Your task to perform on an android device: Search for "razer kraken" on walmart, select the first entry, and add it to the cart. Image 0: 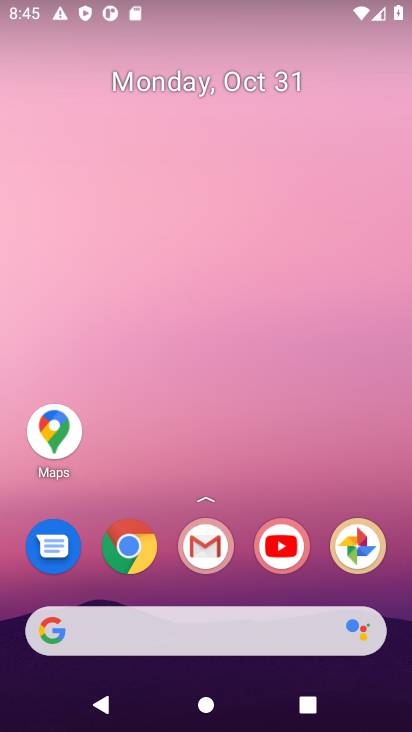
Step 0: click (121, 550)
Your task to perform on an android device: Search for "razer kraken" on walmart, select the first entry, and add it to the cart. Image 1: 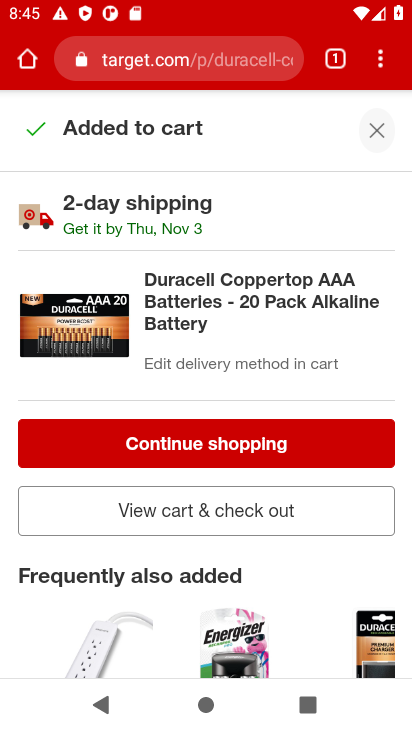
Step 1: click (165, 64)
Your task to perform on an android device: Search for "razer kraken" on walmart, select the first entry, and add it to the cart. Image 2: 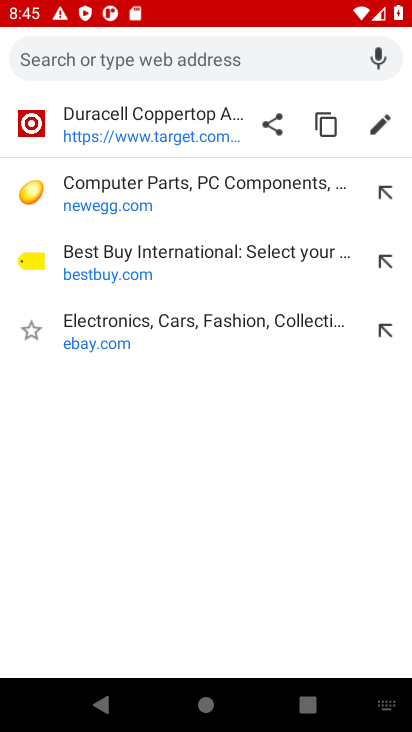
Step 2: type "razer kraken" on walmart"
Your task to perform on an android device: Search for "razer kraken" on walmart, select the first entry, and add it to the cart. Image 3: 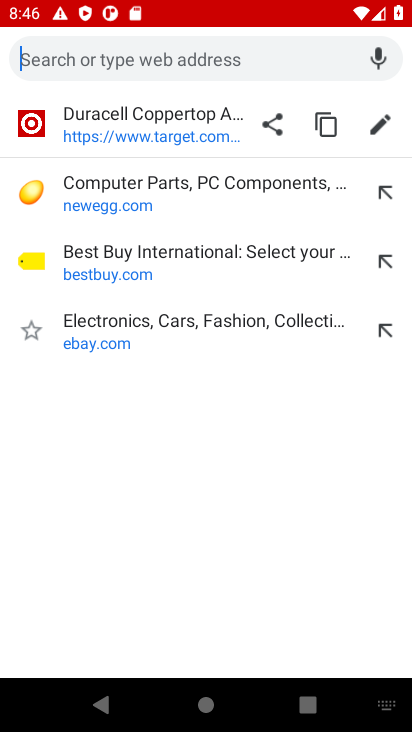
Step 3: type "razer kraken" on walmart"
Your task to perform on an android device: Search for "razer kraken" on walmart, select the first entry, and add it to the cart. Image 4: 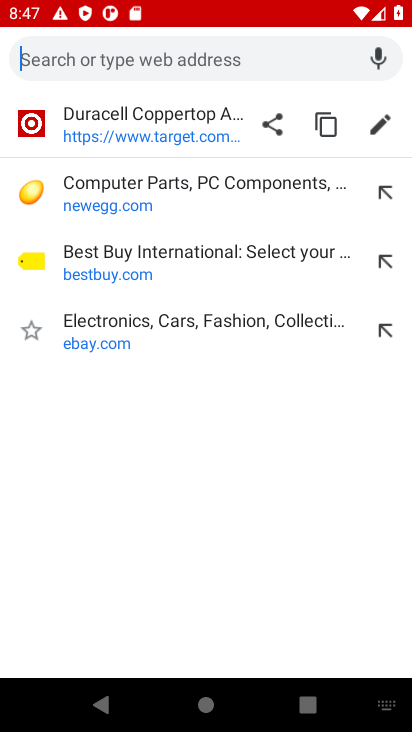
Step 4: click (167, 69)
Your task to perform on an android device: Search for "razer kraken" on walmart, select the first entry, and add it to the cart. Image 5: 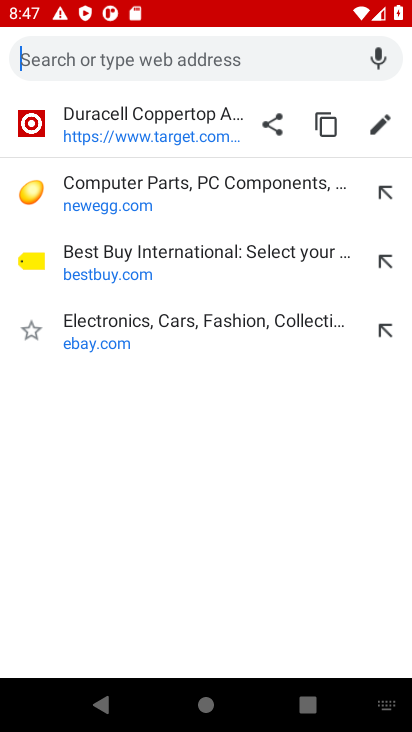
Step 5: click (165, 61)
Your task to perform on an android device: Search for "razer kraken" on walmart, select the first entry, and add it to the cart. Image 6: 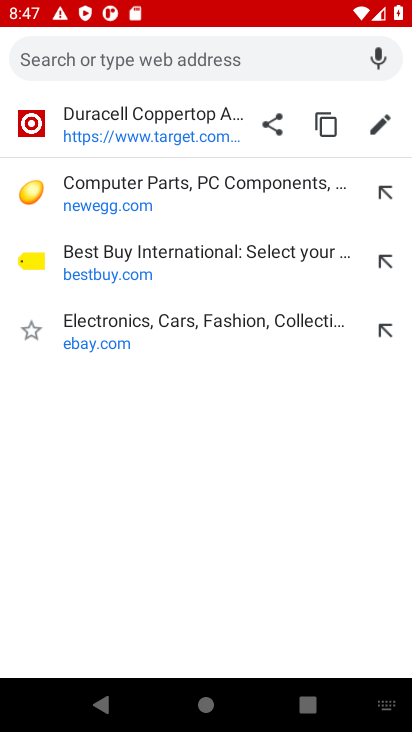
Step 6: type "razer kraken on walmart"
Your task to perform on an android device: Search for "razer kraken" on walmart, select the first entry, and add it to the cart. Image 7: 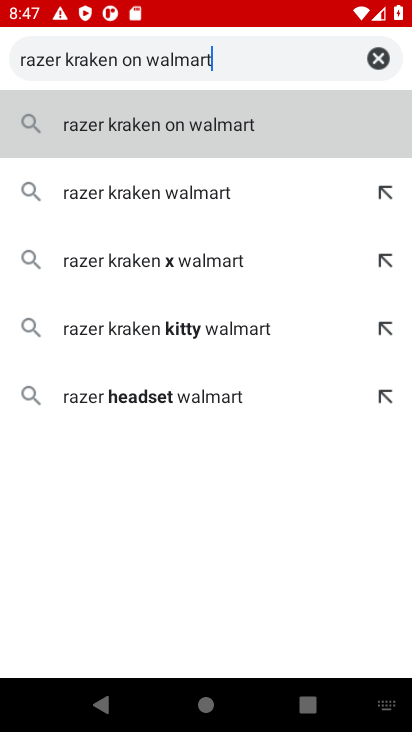
Step 7: press enter
Your task to perform on an android device: Search for "razer kraken" on walmart, select the first entry, and add it to the cart. Image 8: 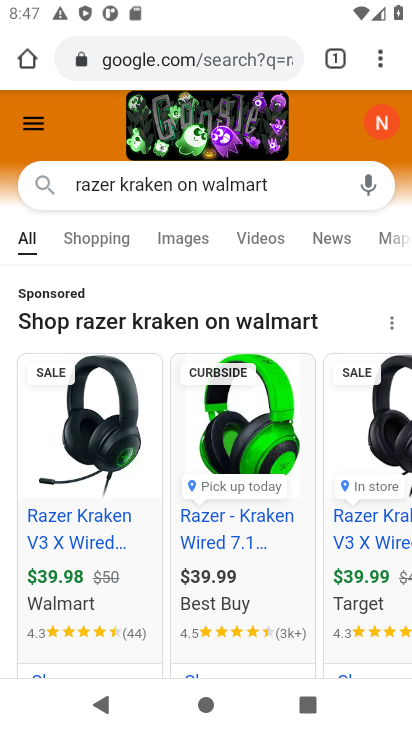
Step 8: drag from (196, 522) to (175, 338)
Your task to perform on an android device: Search for "razer kraken" on walmart, select the first entry, and add it to the cart. Image 9: 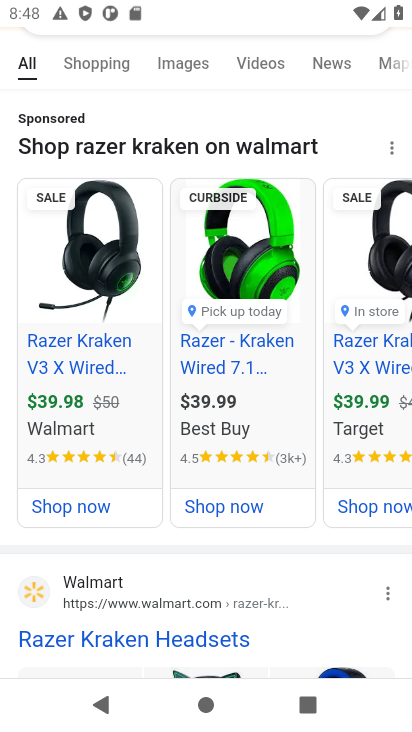
Step 9: drag from (116, 621) to (108, 584)
Your task to perform on an android device: Search for "razer kraken" on walmart, select the first entry, and add it to the cart. Image 10: 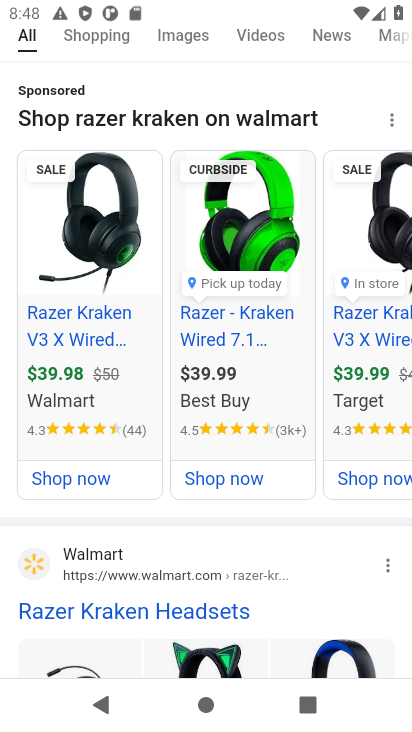
Step 10: click (80, 321)
Your task to perform on an android device: Search for "razer kraken" on walmart, select the first entry, and add it to the cart. Image 11: 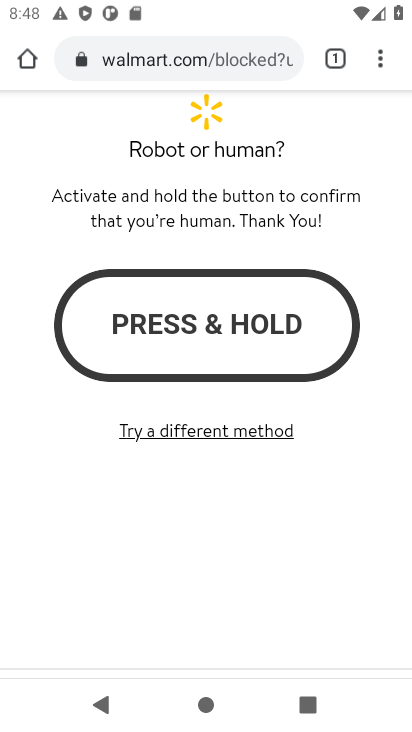
Step 11: click (169, 432)
Your task to perform on an android device: Search for "razer kraken" on walmart, select the first entry, and add it to the cart. Image 12: 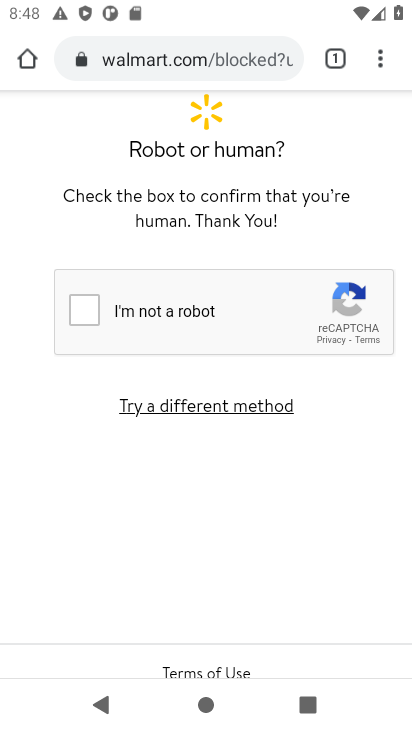
Step 12: click (167, 410)
Your task to perform on an android device: Search for "razer kraken" on walmart, select the first entry, and add it to the cart. Image 13: 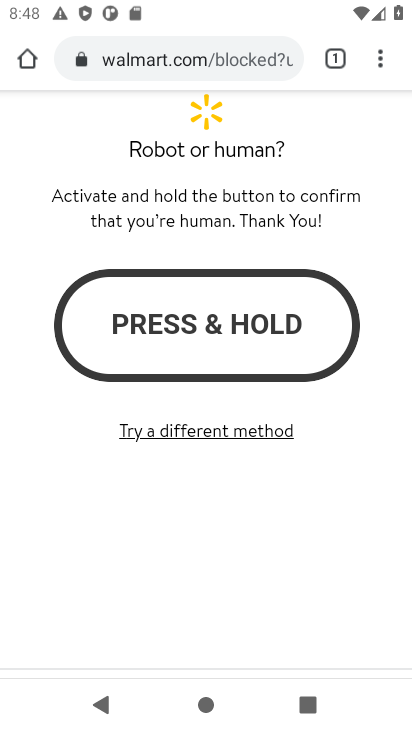
Step 13: click (177, 335)
Your task to perform on an android device: Search for "razer kraken" on walmart, select the first entry, and add it to the cart. Image 14: 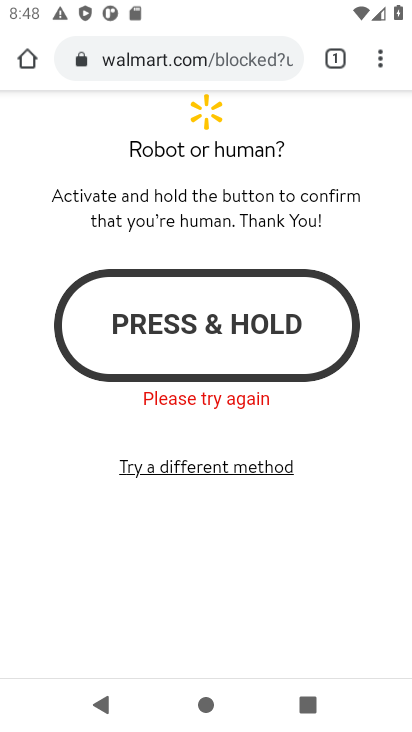
Step 14: click (200, 334)
Your task to perform on an android device: Search for "razer kraken" on walmart, select the first entry, and add it to the cart. Image 15: 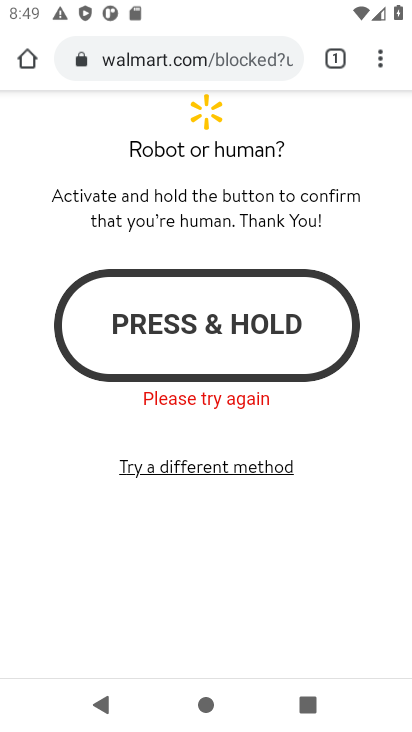
Step 15: click (200, 334)
Your task to perform on an android device: Search for "razer kraken" on walmart, select the first entry, and add it to the cart. Image 16: 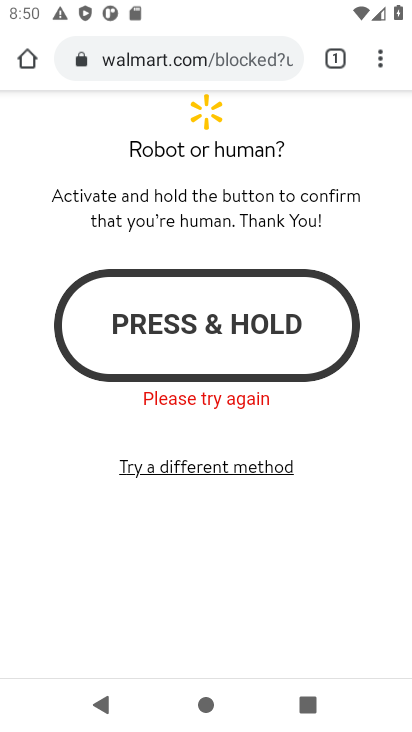
Step 16: task complete